Your task to perform on an android device: Search for usb-a to usb-b on walmart.com, select the first entry, add it to the cart, then select checkout. Image 0: 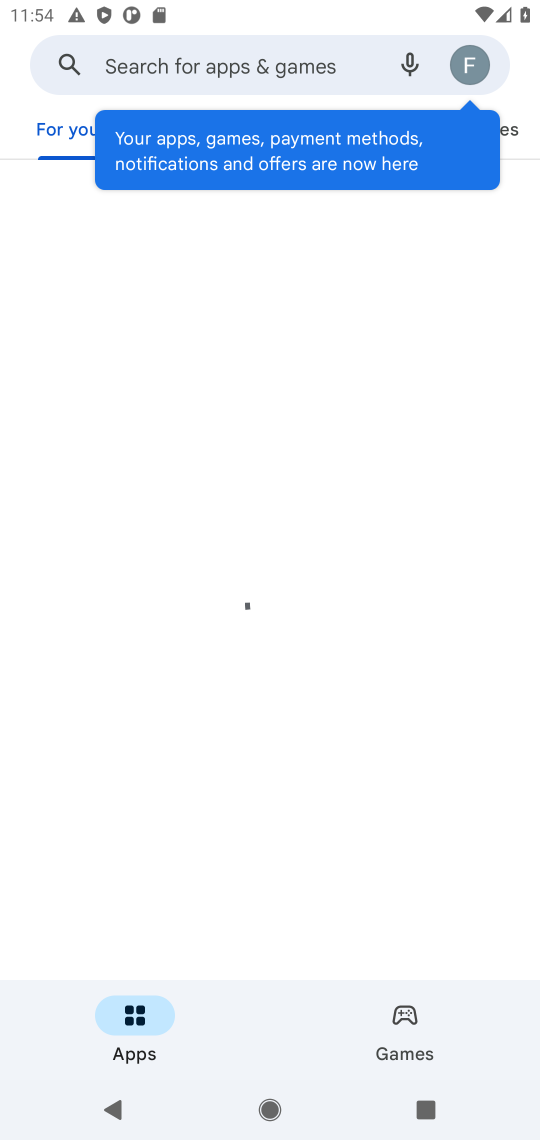
Step 0: press home button
Your task to perform on an android device: Search for usb-a to usb-b on walmart.com, select the first entry, add it to the cart, then select checkout. Image 1: 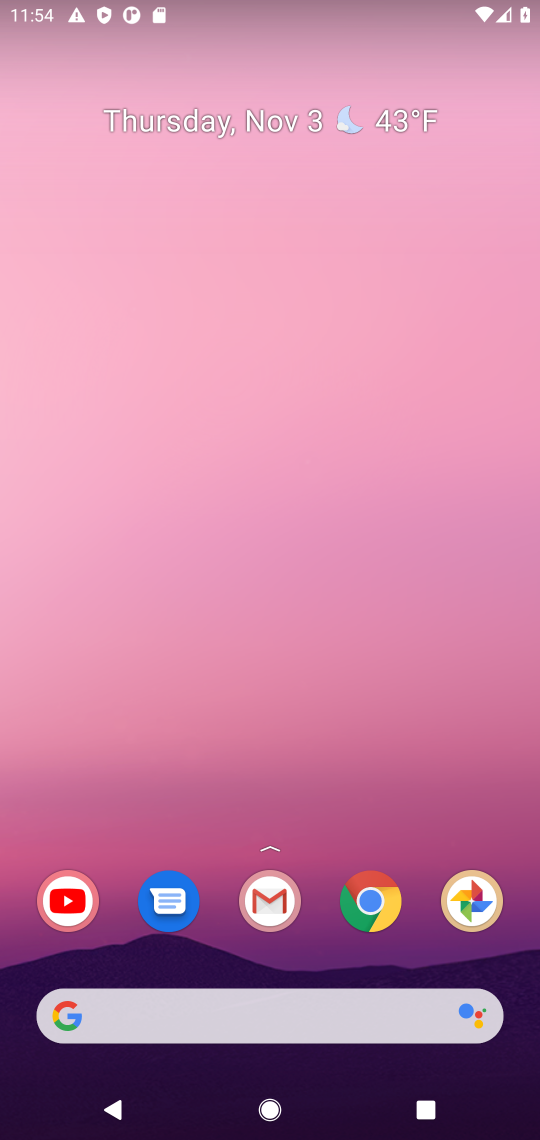
Step 1: click (380, 893)
Your task to perform on an android device: Search for usb-a to usb-b on walmart.com, select the first entry, add it to the cart, then select checkout. Image 2: 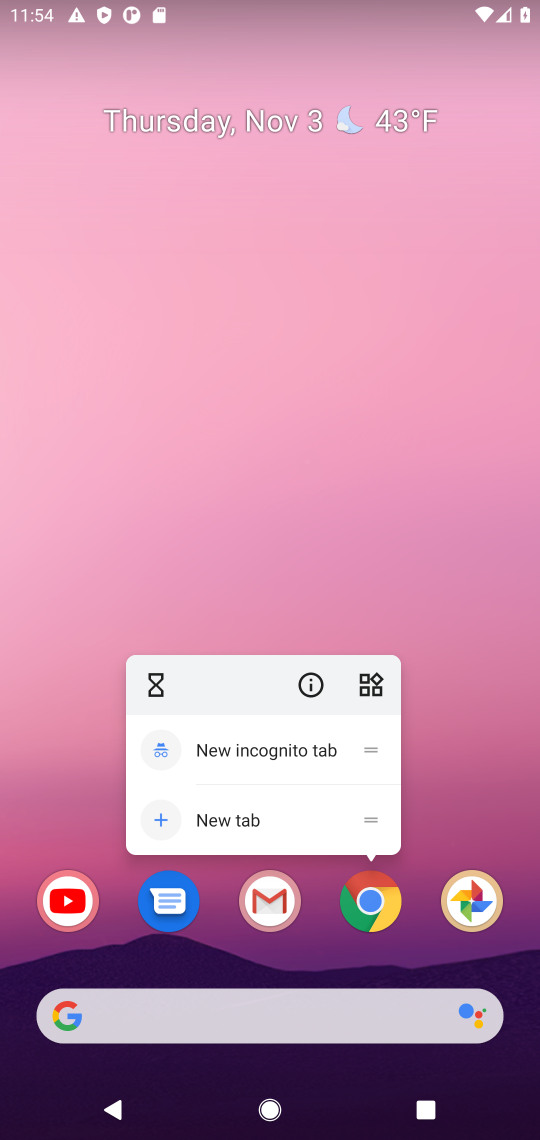
Step 2: click (363, 849)
Your task to perform on an android device: Search for usb-a to usb-b on walmart.com, select the first entry, add it to the cart, then select checkout. Image 3: 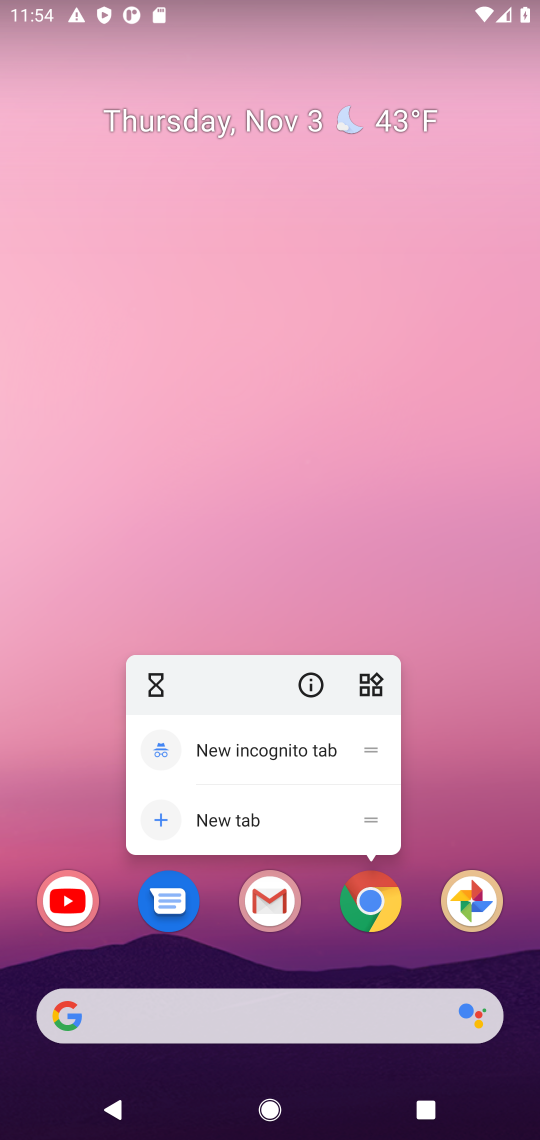
Step 3: click (369, 913)
Your task to perform on an android device: Search for usb-a to usb-b on walmart.com, select the first entry, add it to the cart, then select checkout. Image 4: 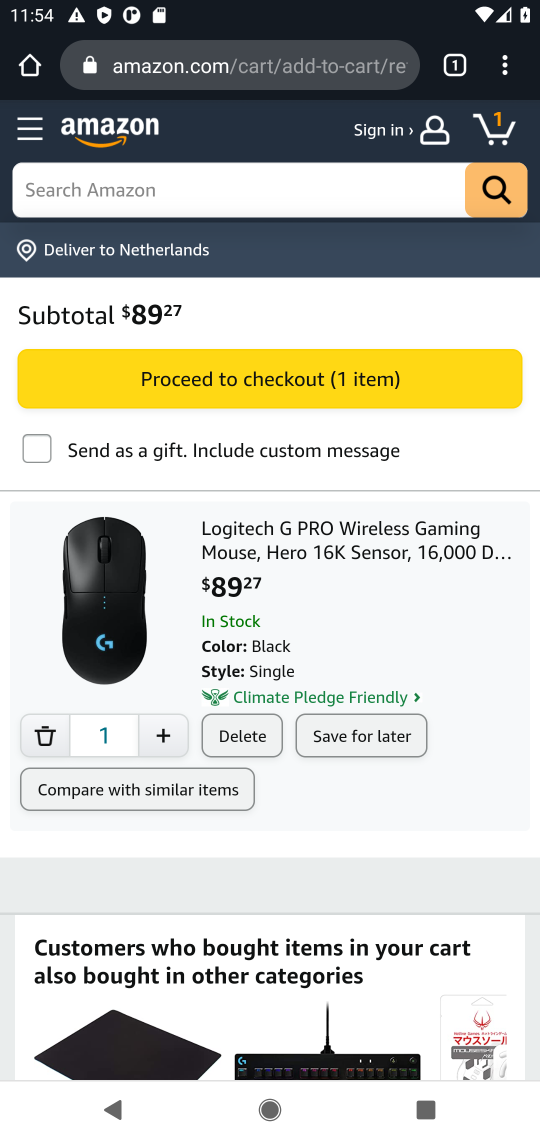
Step 4: click (246, 63)
Your task to perform on an android device: Search for usb-a to usb-b on walmart.com, select the first entry, add it to the cart, then select checkout. Image 5: 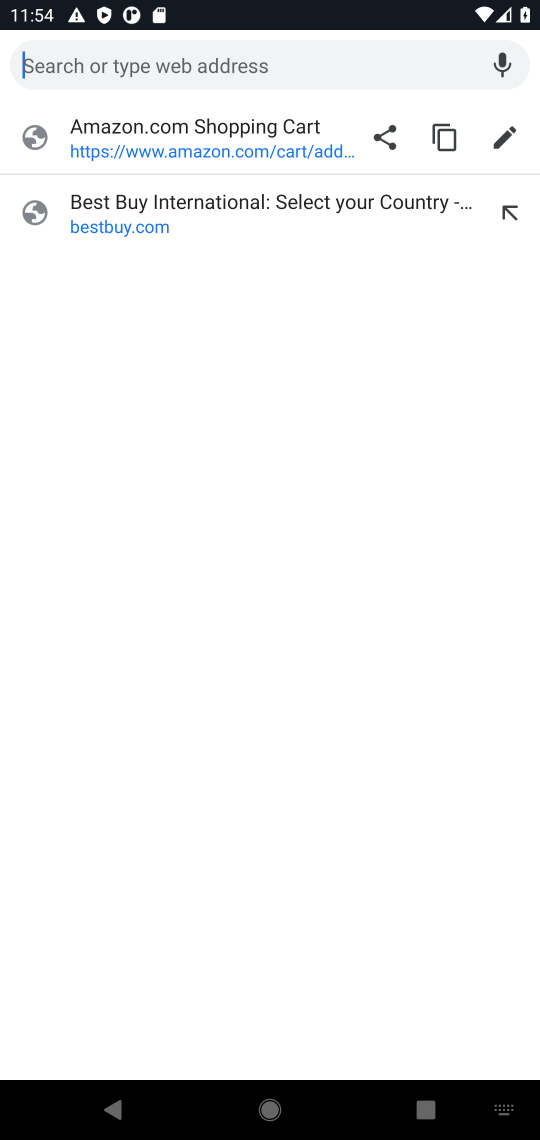
Step 5: type "walmart"
Your task to perform on an android device: Search for usb-a to usb-b on walmart.com, select the first entry, add it to the cart, then select checkout. Image 6: 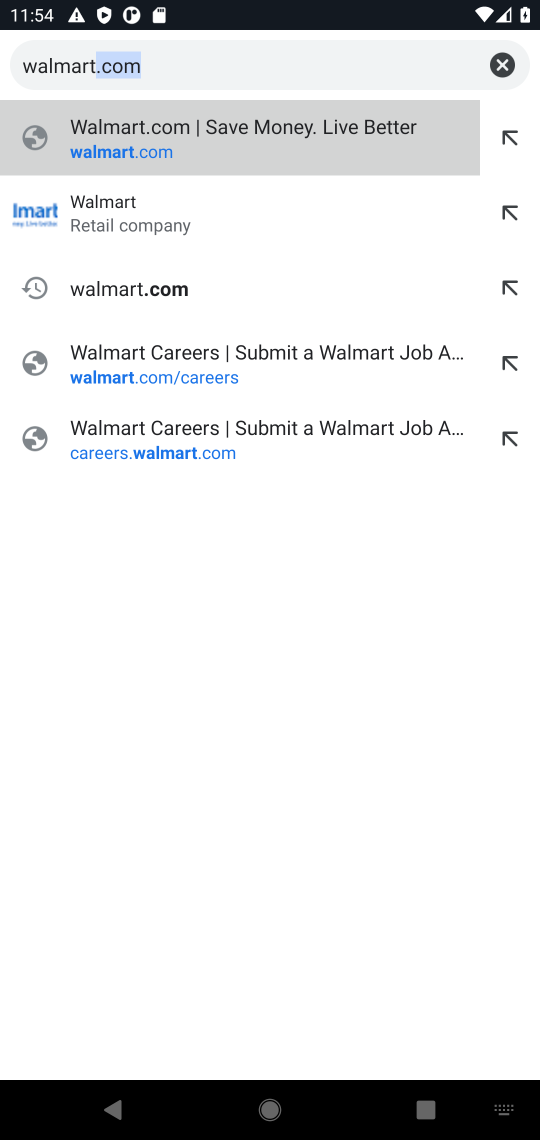
Step 6: press enter
Your task to perform on an android device: Search for usb-a to usb-b on walmart.com, select the first entry, add it to the cart, then select checkout. Image 7: 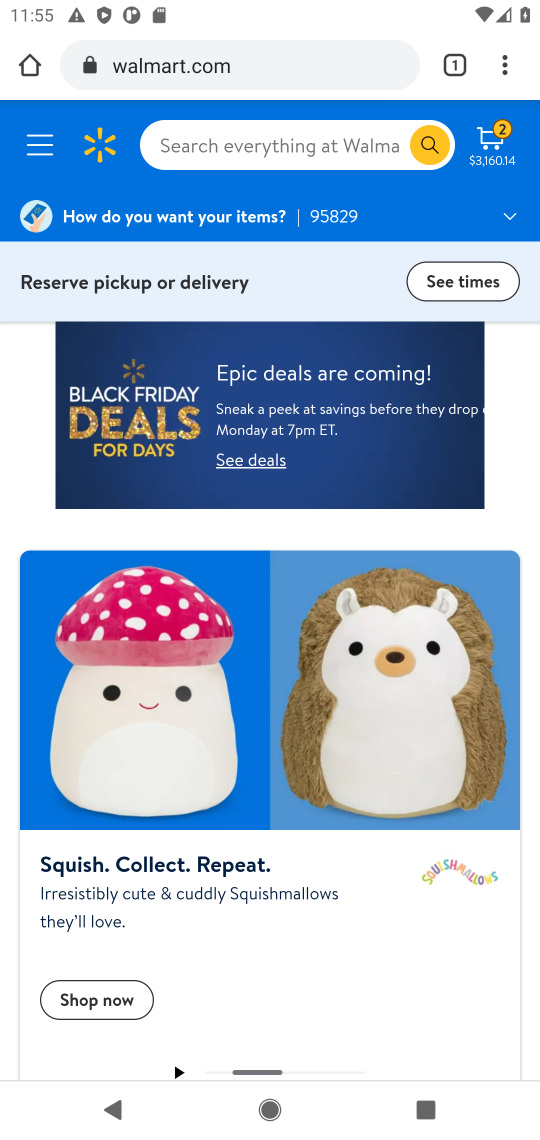
Step 7: click (310, 128)
Your task to perform on an android device: Search for usb-a to usb-b on walmart.com, select the first entry, add it to the cart, then select checkout. Image 8: 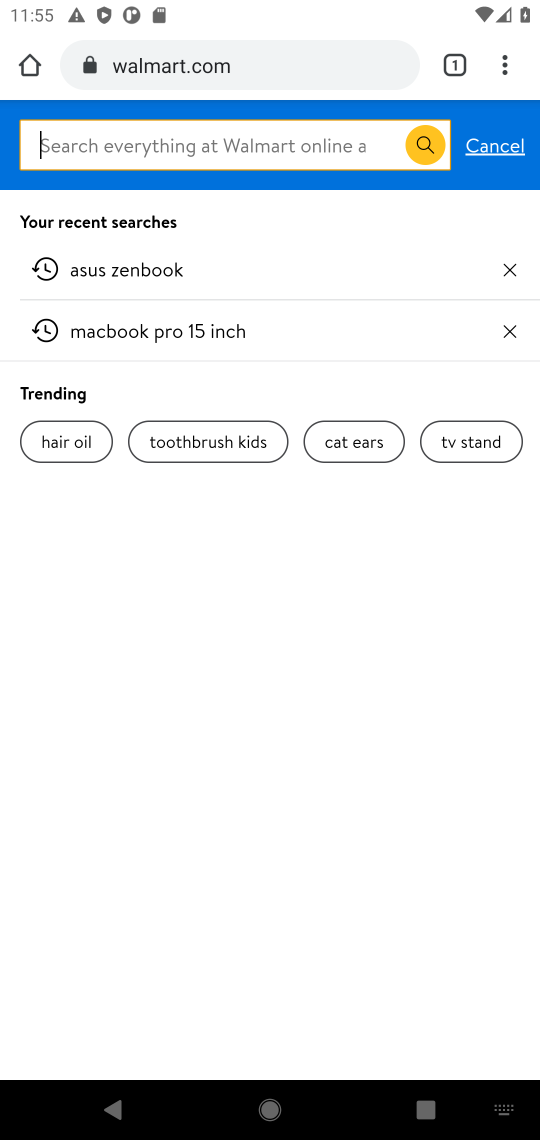
Step 8: type "usb-a to usb-b"
Your task to perform on an android device: Search for usb-a to usb-b on walmart.com, select the first entry, add it to the cart, then select checkout. Image 9: 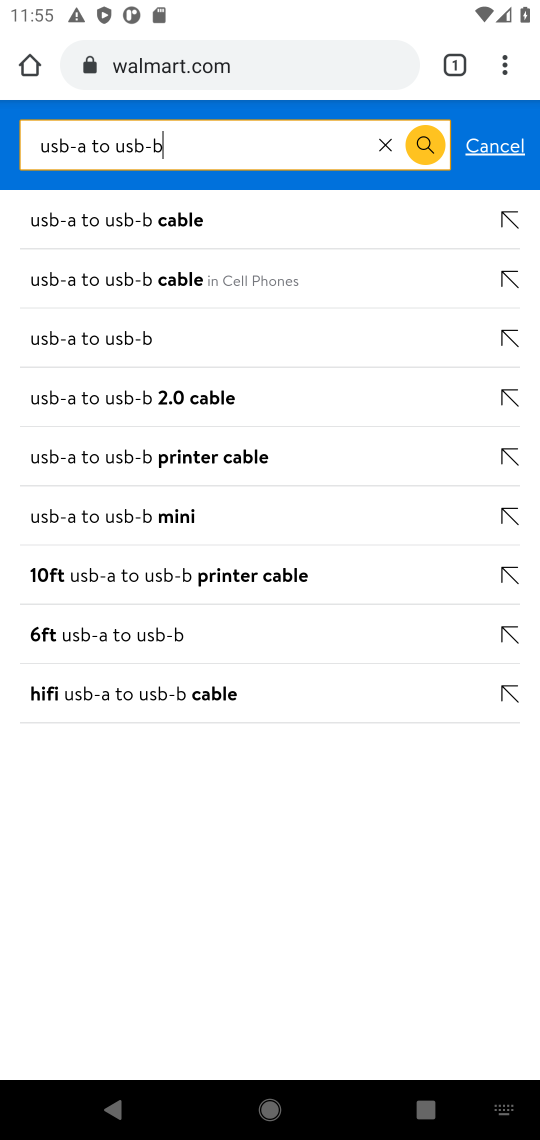
Step 9: click (118, 344)
Your task to perform on an android device: Search for usb-a to usb-b on walmart.com, select the first entry, add it to the cart, then select checkout. Image 10: 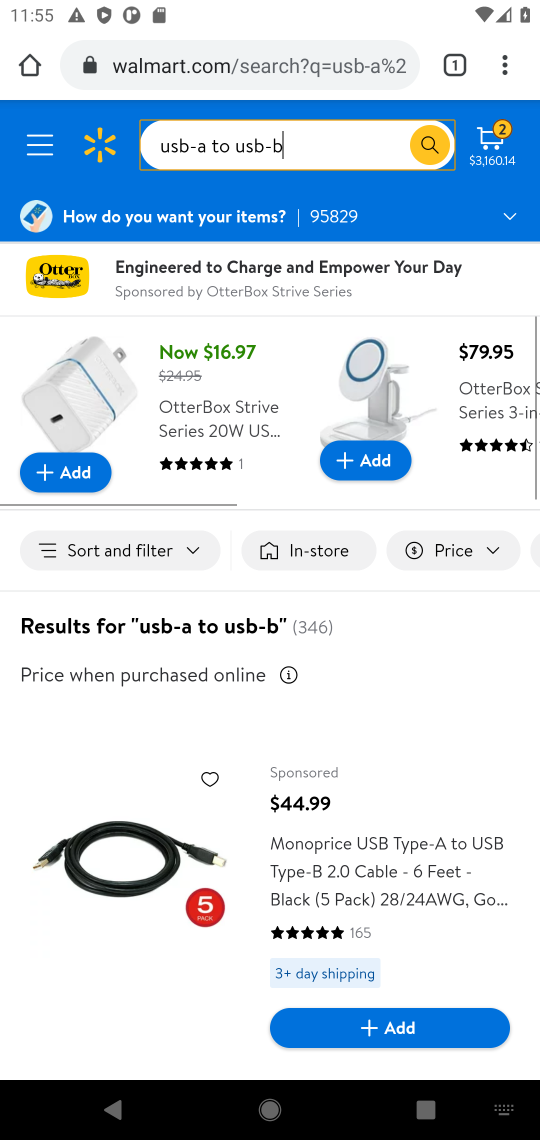
Step 10: drag from (128, 864) to (148, 449)
Your task to perform on an android device: Search for usb-a to usb-b on walmart.com, select the first entry, add it to the cart, then select checkout. Image 11: 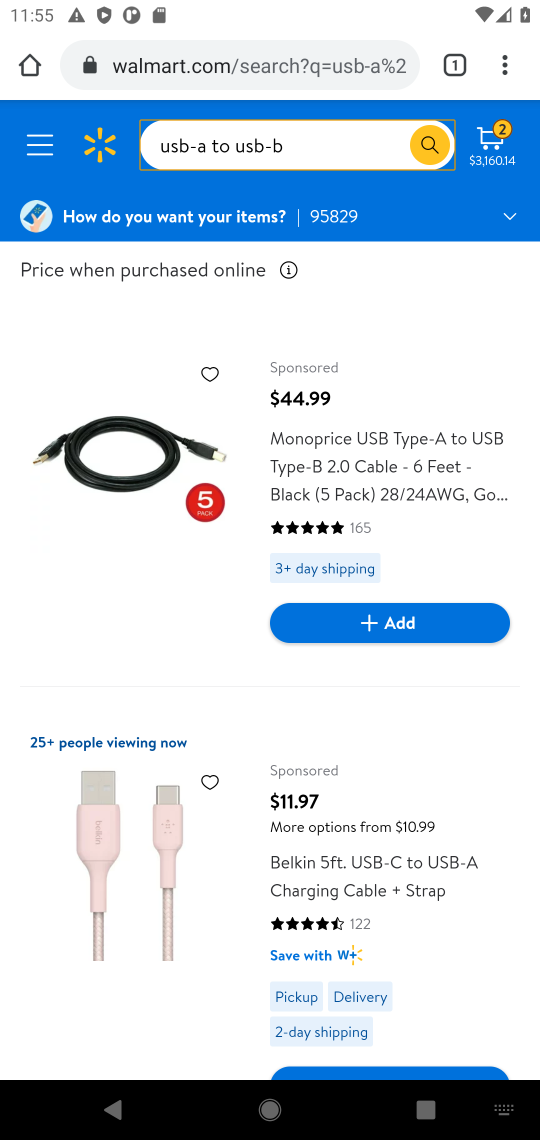
Step 11: click (96, 470)
Your task to perform on an android device: Search for usb-a to usb-b on walmart.com, select the first entry, add it to the cart, then select checkout. Image 12: 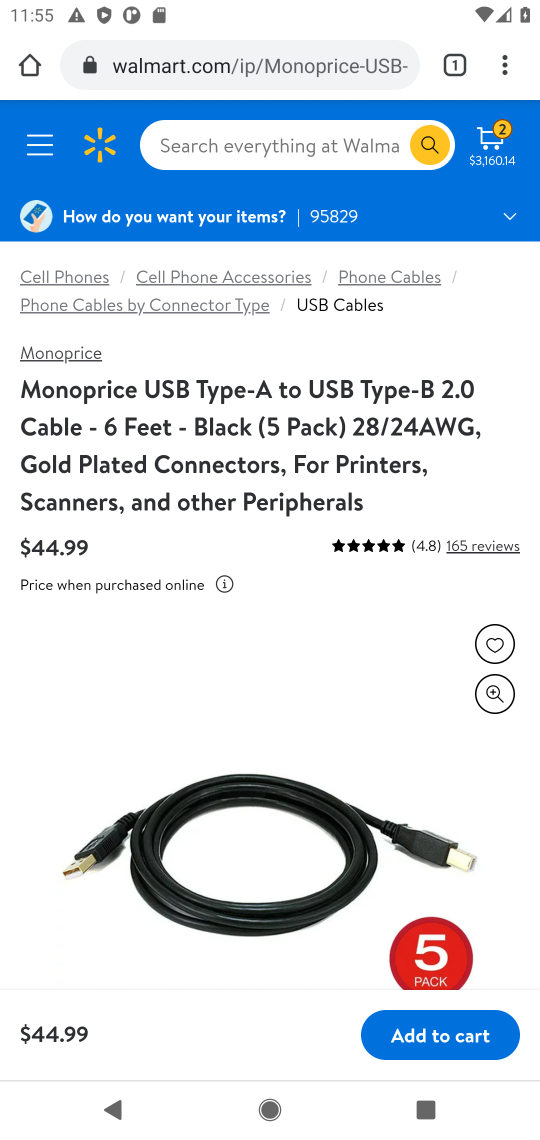
Step 12: click (436, 1041)
Your task to perform on an android device: Search for usb-a to usb-b on walmart.com, select the first entry, add it to the cart, then select checkout. Image 13: 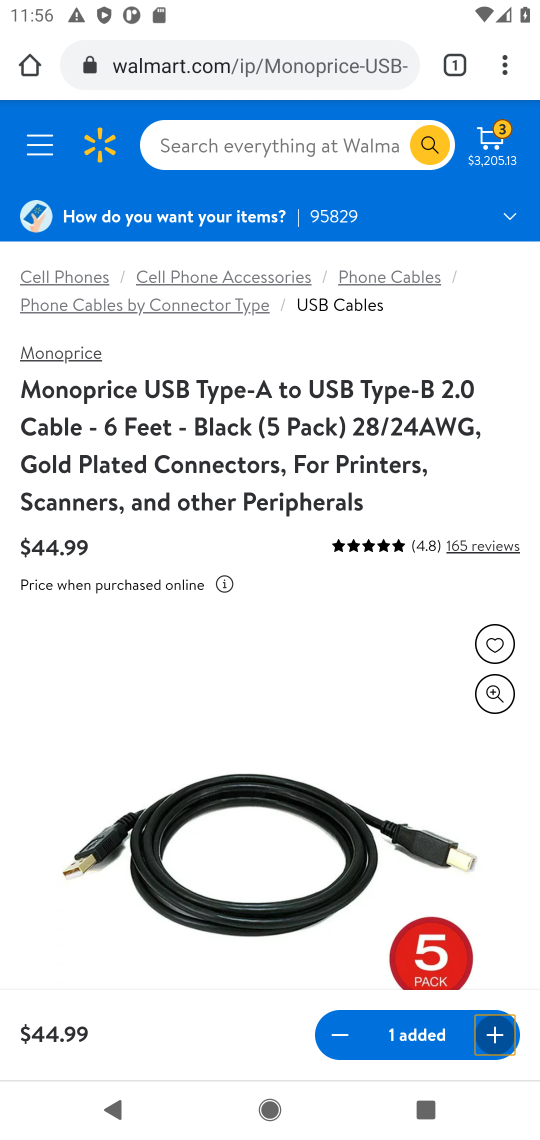
Step 13: click (489, 133)
Your task to perform on an android device: Search for usb-a to usb-b on walmart.com, select the first entry, add it to the cart, then select checkout. Image 14: 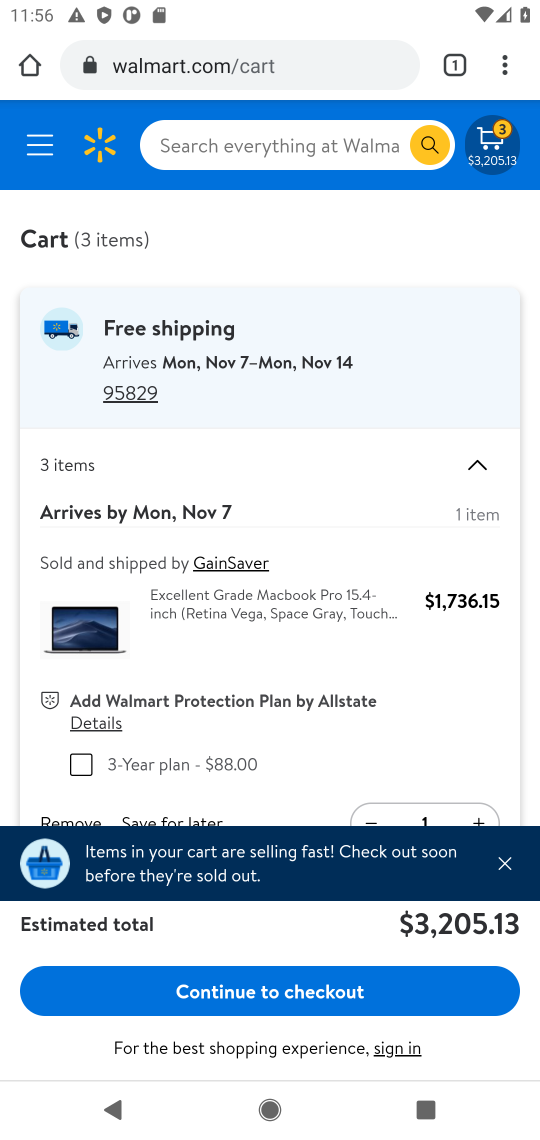
Step 14: click (271, 991)
Your task to perform on an android device: Search for usb-a to usb-b on walmart.com, select the first entry, add it to the cart, then select checkout. Image 15: 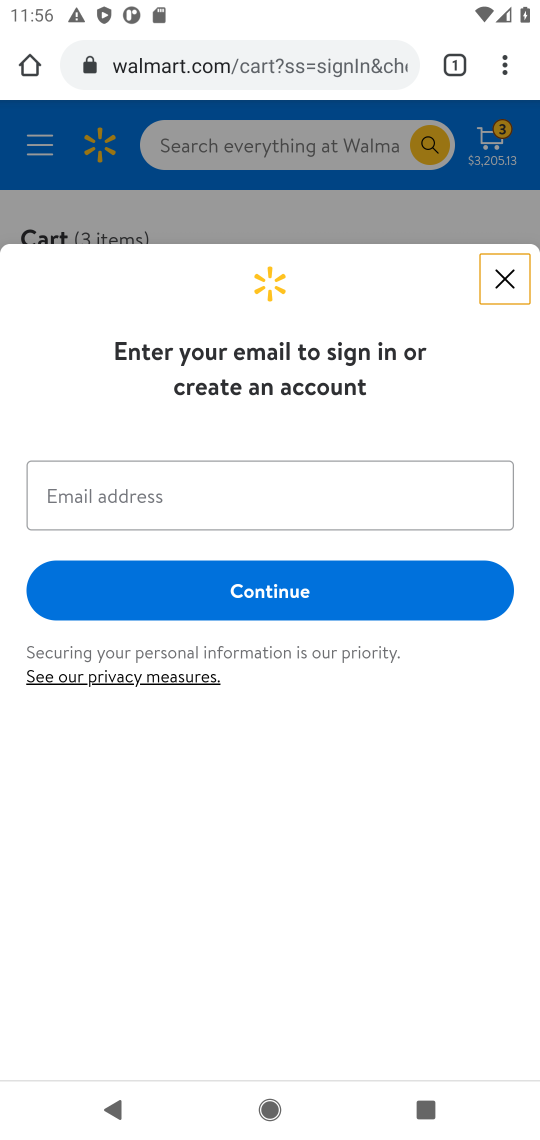
Step 15: task complete